Your task to perform on an android device: change the clock display to show seconds Image 0: 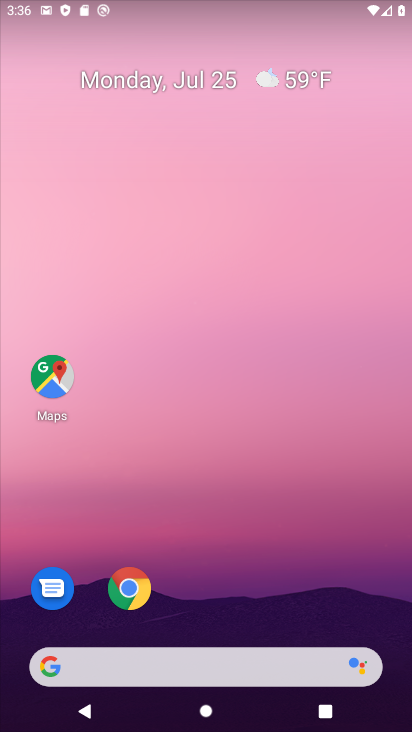
Step 0: press home button
Your task to perform on an android device: change the clock display to show seconds Image 1: 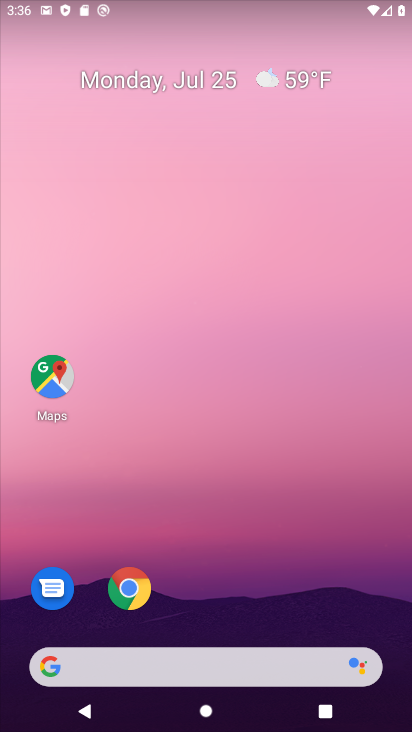
Step 1: drag from (326, 634) to (320, 274)
Your task to perform on an android device: change the clock display to show seconds Image 2: 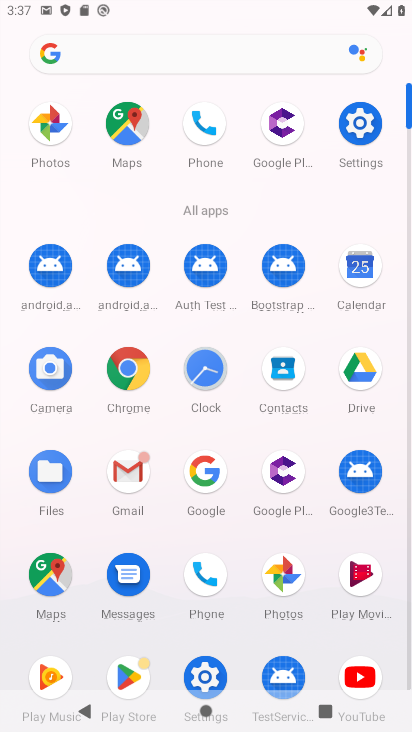
Step 2: click (231, 720)
Your task to perform on an android device: change the clock display to show seconds Image 3: 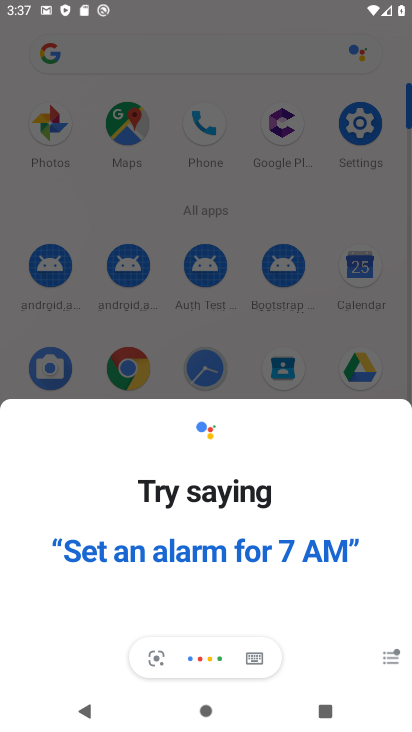
Step 3: press home button
Your task to perform on an android device: change the clock display to show seconds Image 4: 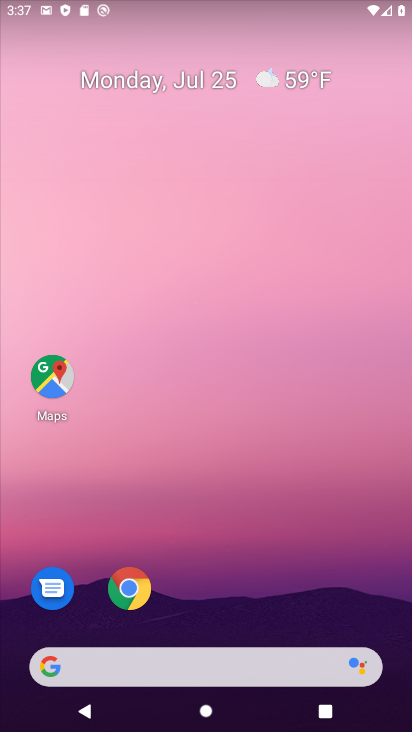
Step 4: drag from (251, 622) to (315, 3)
Your task to perform on an android device: change the clock display to show seconds Image 5: 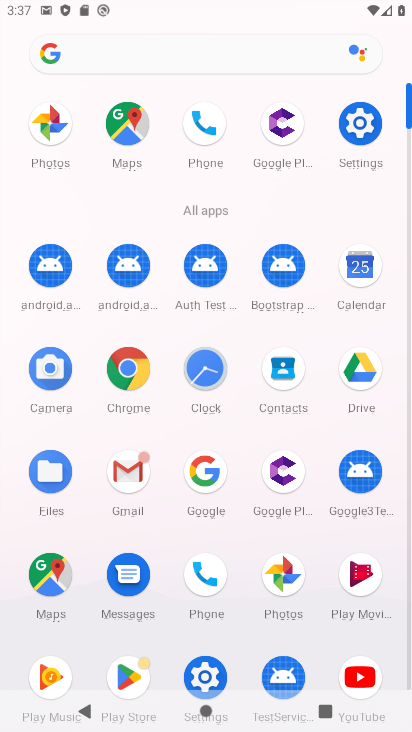
Step 5: click (201, 673)
Your task to perform on an android device: change the clock display to show seconds Image 6: 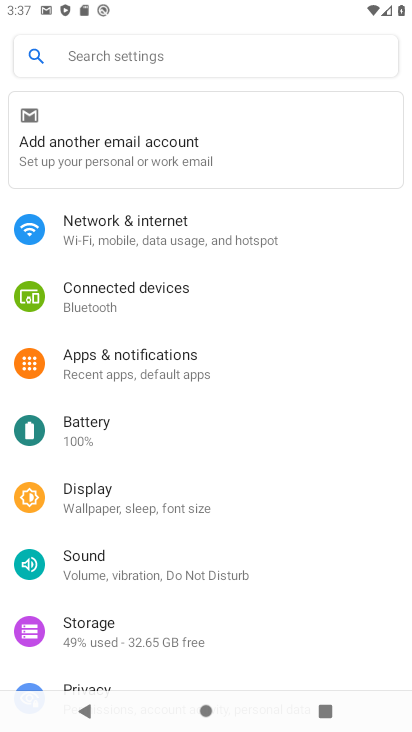
Step 6: press home button
Your task to perform on an android device: change the clock display to show seconds Image 7: 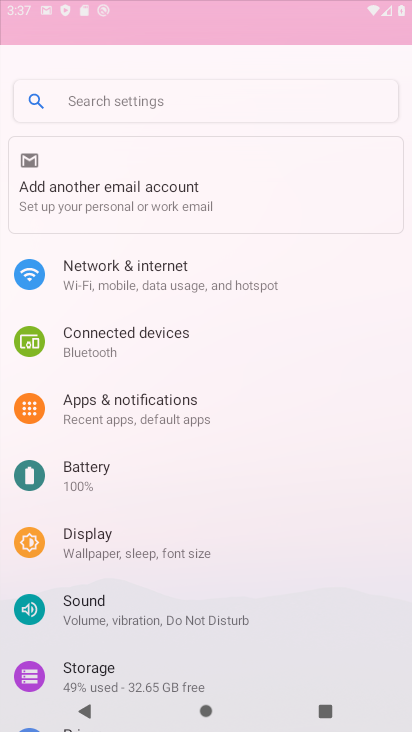
Step 7: click (240, 242)
Your task to perform on an android device: change the clock display to show seconds Image 8: 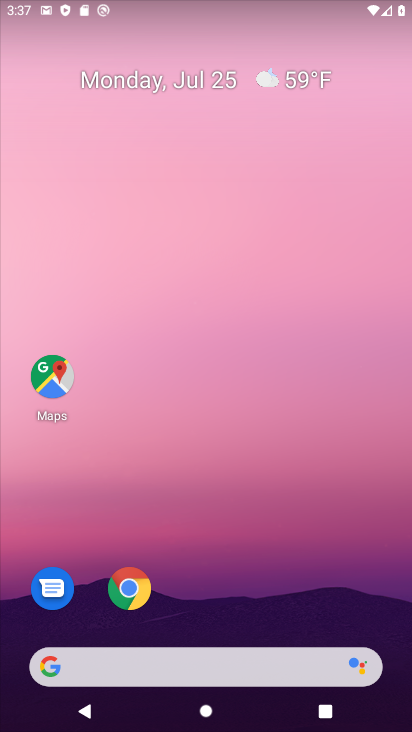
Step 8: drag from (309, 546) to (254, 10)
Your task to perform on an android device: change the clock display to show seconds Image 9: 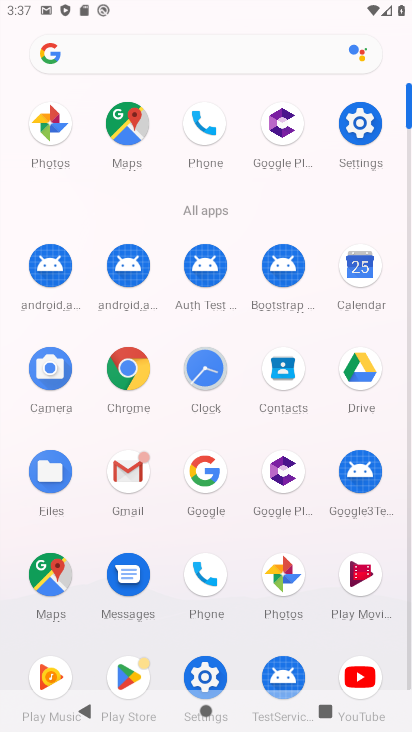
Step 9: click (191, 361)
Your task to perform on an android device: change the clock display to show seconds Image 10: 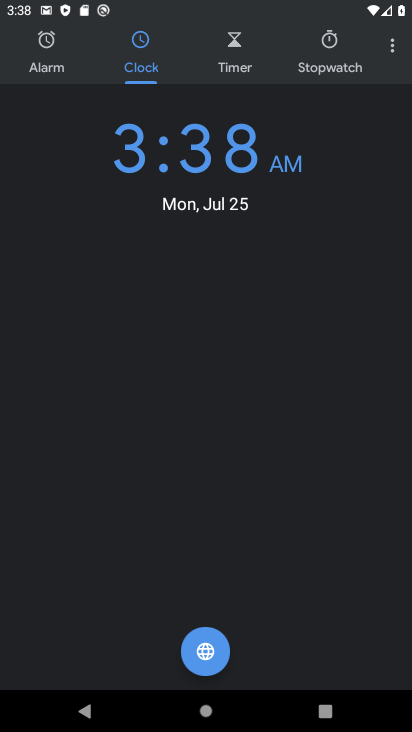
Step 10: click (390, 59)
Your task to perform on an android device: change the clock display to show seconds Image 11: 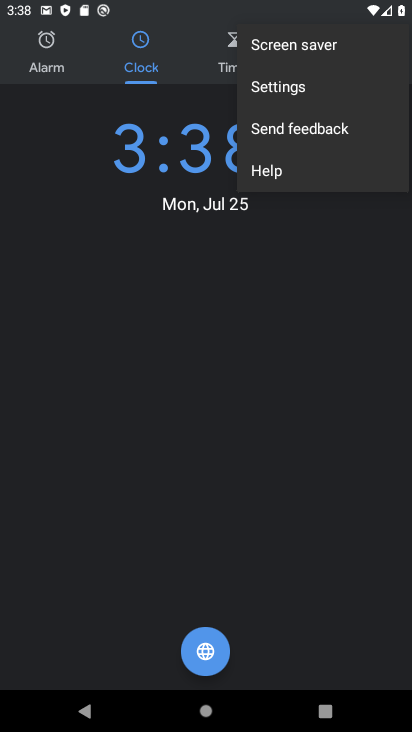
Step 11: click (272, 81)
Your task to perform on an android device: change the clock display to show seconds Image 12: 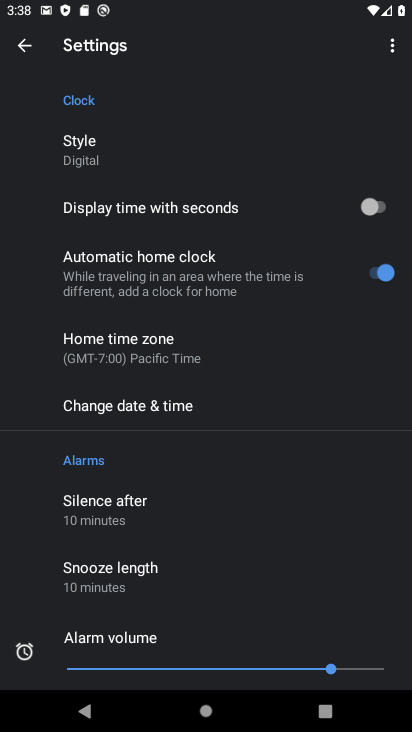
Step 12: click (113, 215)
Your task to perform on an android device: change the clock display to show seconds Image 13: 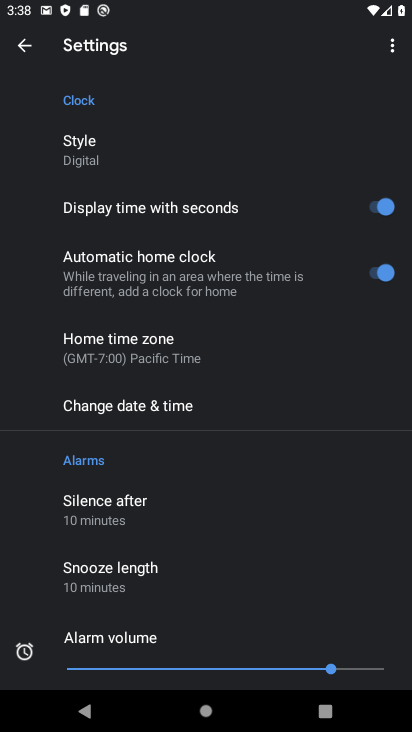
Step 13: task complete